Your task to perform on an android device: allow cookies in the chrome app Image 0: 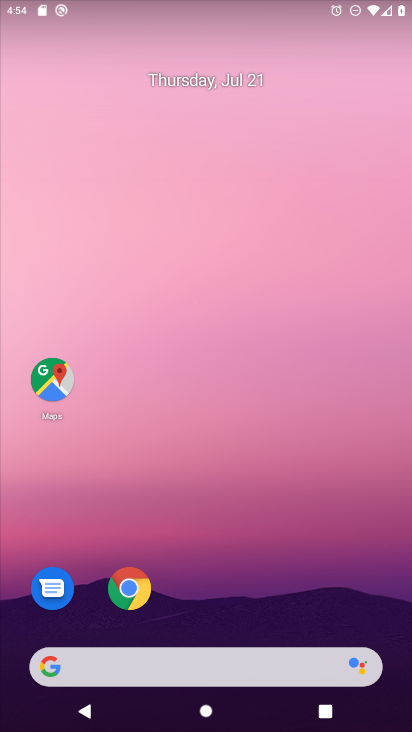
Step 0: drag from (380, 591) to (334, 68)
Your task to perform on an android device: allow cookies in the chrome app Image 1: 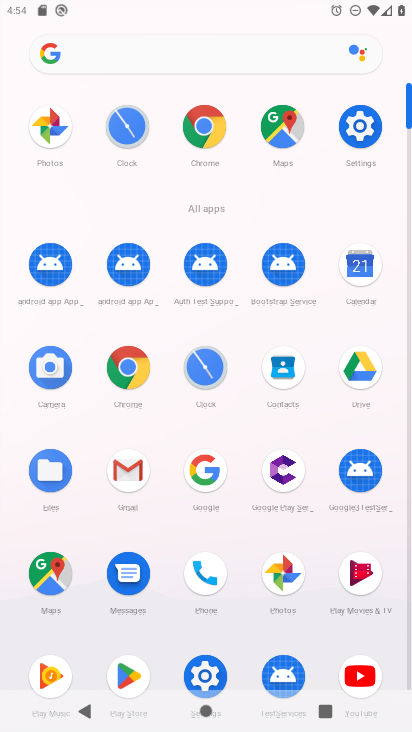
Step 1: click (206, 142)
Your task to perform on an android device: allow cookies in the chrome app Image 2: 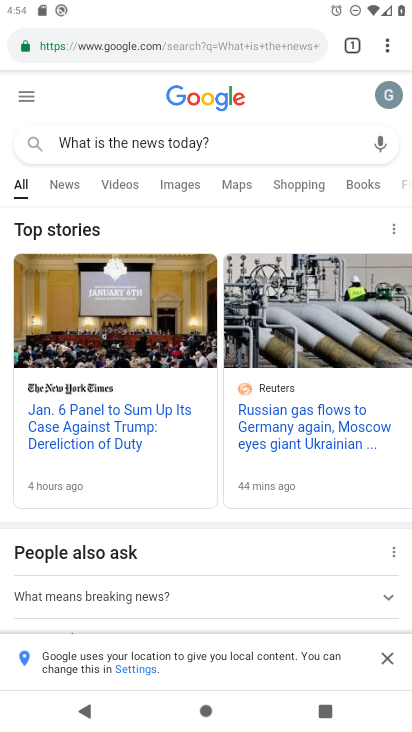
Step 2: click (397, 45)
Your task to perform on an android device: allow cookies in the chrome app Image 3: 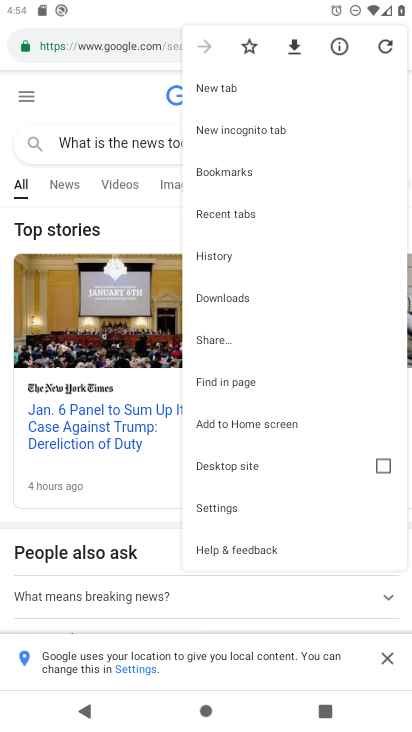
Step 3: click (233, 502)
Your task to perform on an android device: allow cookies in the chrome app Image 4: 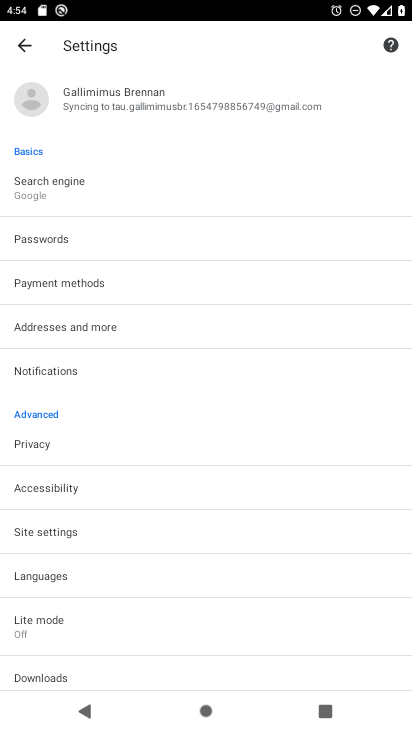
Step 4: click (65, 532)
Your task to perform on an android device: allow cookies in the chrome app Image 5: 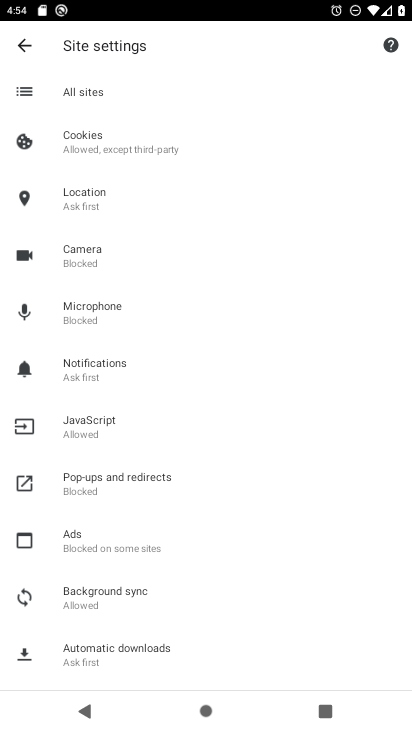
Step 5: click (145, 150)
Your task to perform on an android device: allow cookies in the chrome app Image 6: 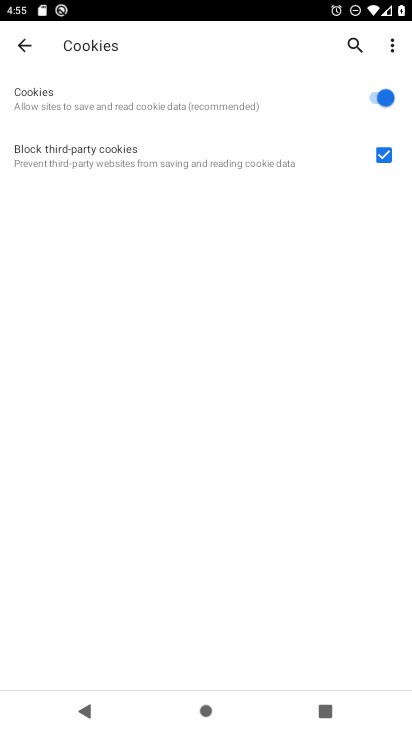
Step 6: task complete